Your task to perform on an android device: turn on sleep mode Image 0: 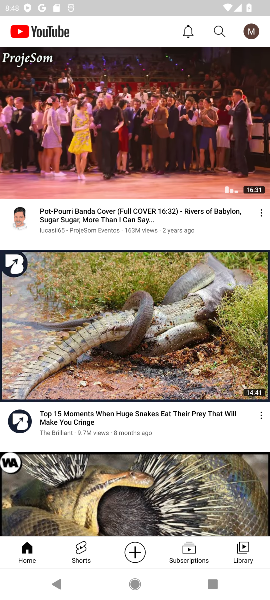
Step 0: drag from (163, 524) to (172, 243)
Your task to perform on an android device: turn on sleep mode Image 1: 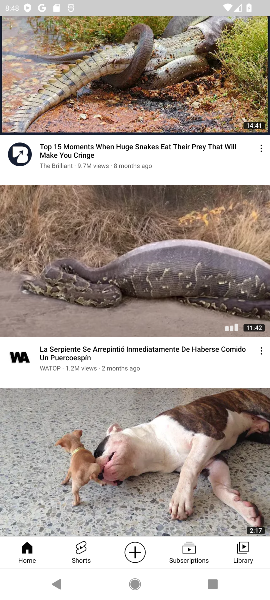
Step 1: press home button
Your task to perform on an android device: turn on sleep mode Image 2: 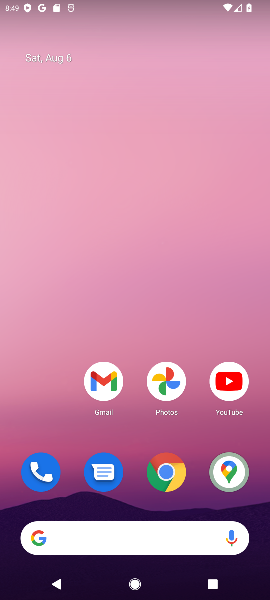
Step 2: drag from (257, 583) to (247, 60)
Your task to perform on an android device: turn on sleep mode Image 3: 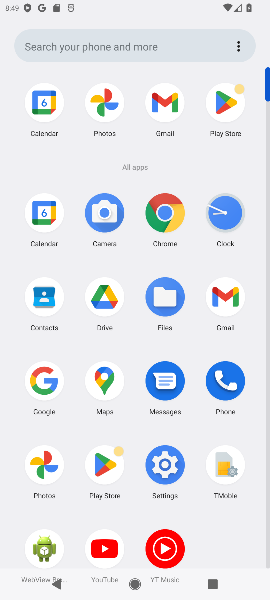
Step 3: click (158, 462)
Your task to perform on an android device: turn on sleep mode Image 4: 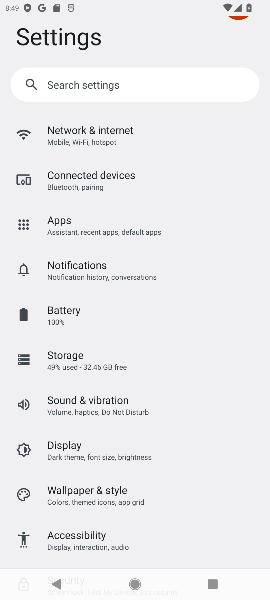
Step 4: click (64, 454)
Your task to perform on an android device: turn on sleep mode Image 5: 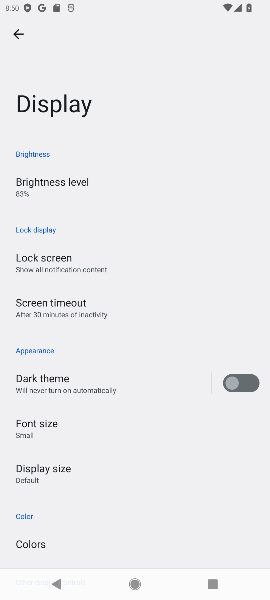
Step 5: click (62, 316)
Your task to perform on an android device: turn on sleep mode Image 6: 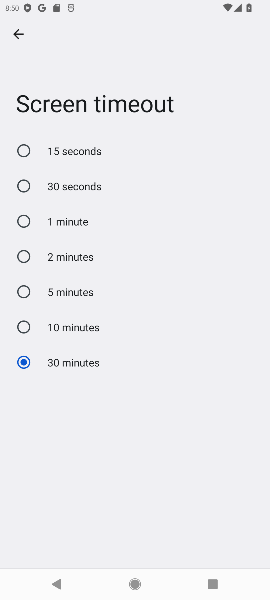
Step 6: task complete